Your task to perform on an android device: What's on my calendar today? Image 0: 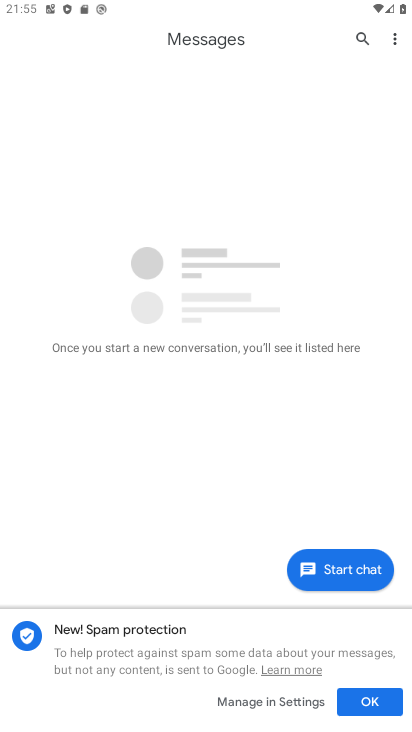
Step 0: press home button
Your task to perform on an android device: What's on my calendar today? Image 1: 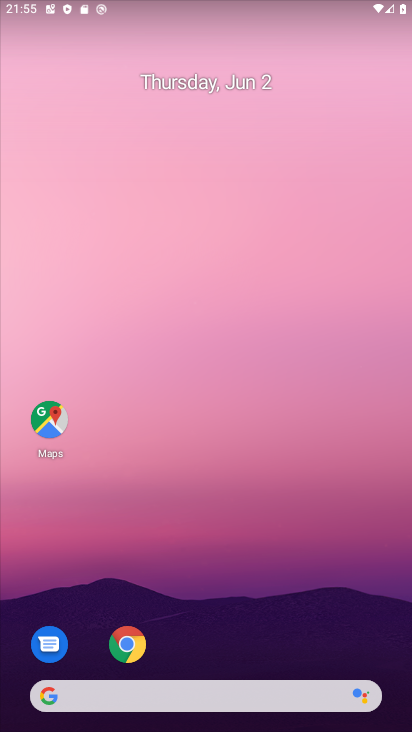
Step 1: drag from (195, 653) to (162, 224)
Your task to perform on an android device: What's on my calendar today? Image 2: 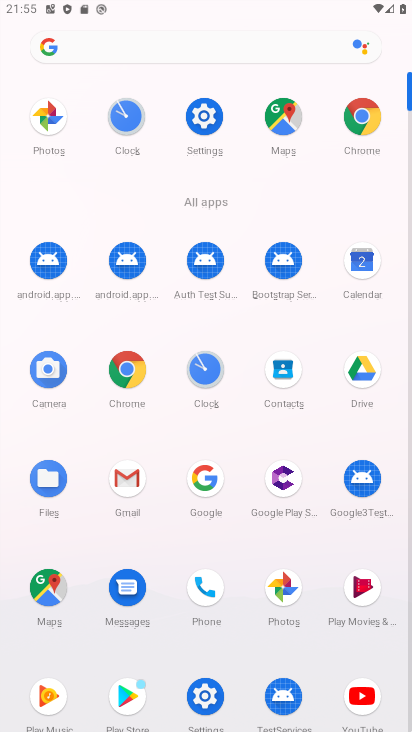
Step 2: click (368, 301)
Your task to perform on an android device: What's on my calendar today? Image 3: 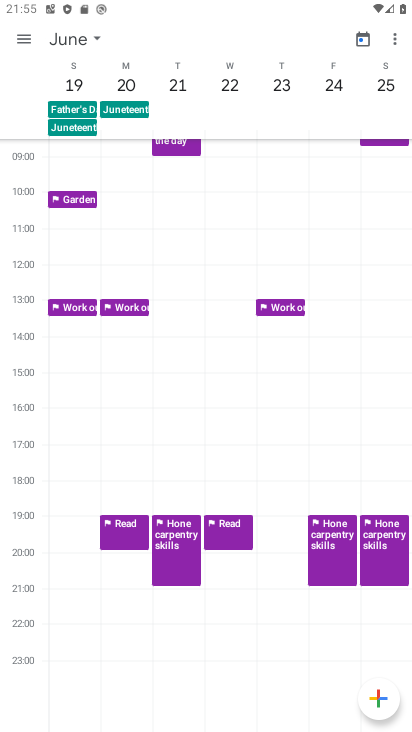
Step 3: click (73, 52)
Your task to perform on an android device: What's on my calendar today? Image 4: 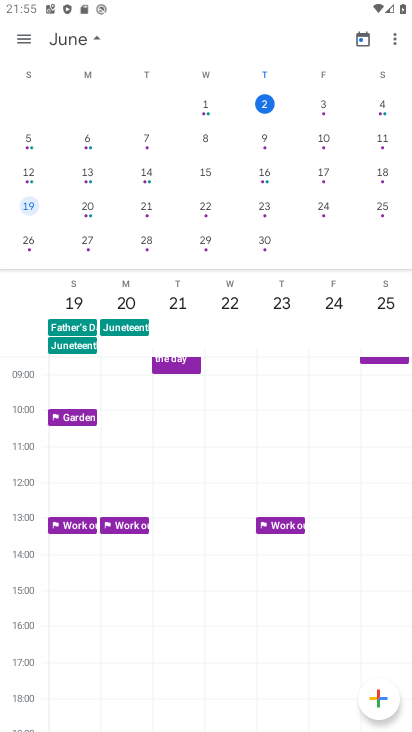
Step 4: click (22, 32)
Your task to perform on an android device: What's on my calendar today? Image 5: 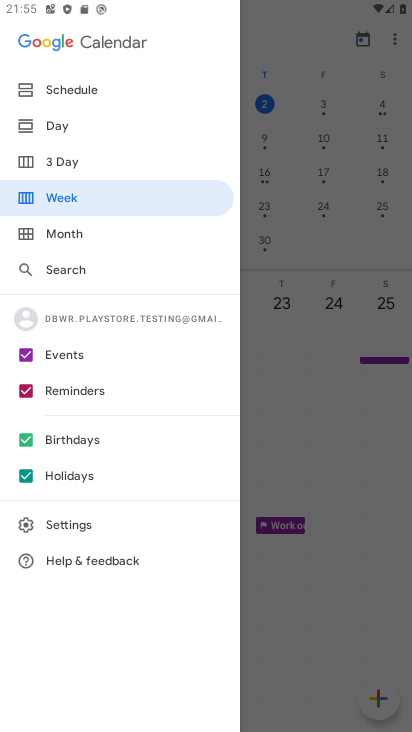
Step 5: click (68, 87)
Your task to perform on an android device: What's on my calendar today? Image 6: 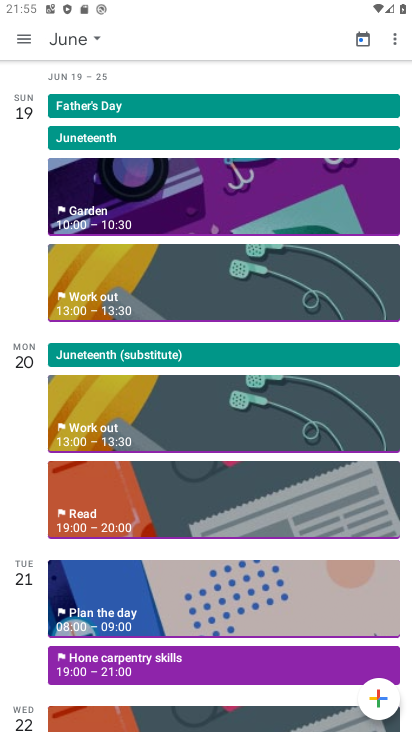
Step 6: click (69, 46)
Your task to perform on an android device: What's on my calendar today? Image 7: 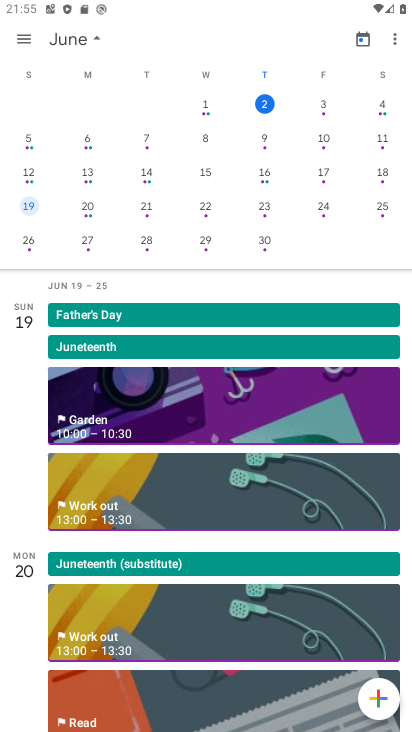
Step 7: click (266, 108)
Your task to perform on an android device: What's on my calendar today? Image 8: 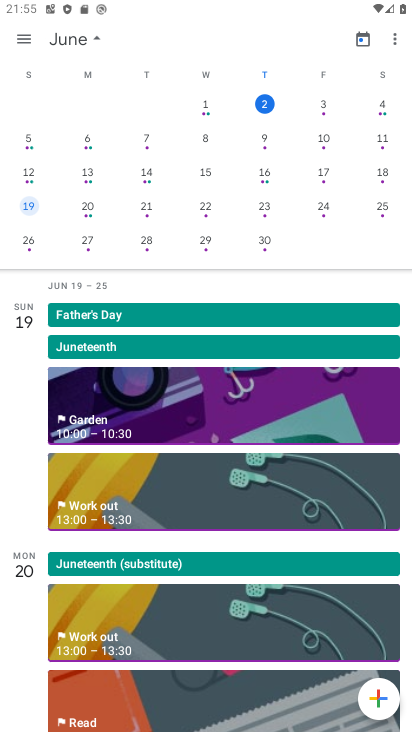
Step 8: click (326, 108)
Your task to perform on an android device: What's on my calendar today? Image 9: 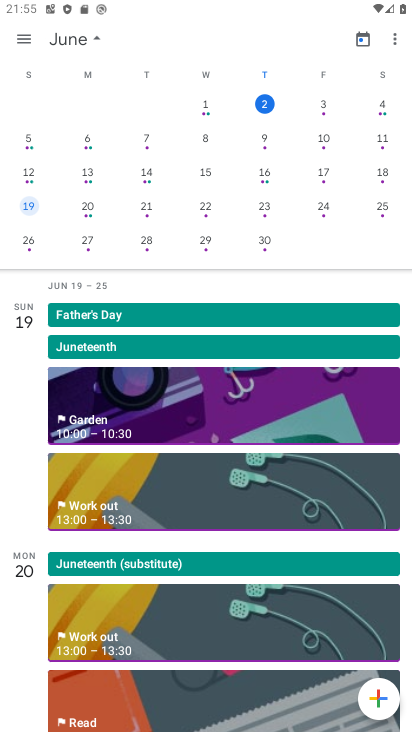
Step 9: click (326, 108)
Your task to perform on an android device: What's on my calendar today? Image 10: 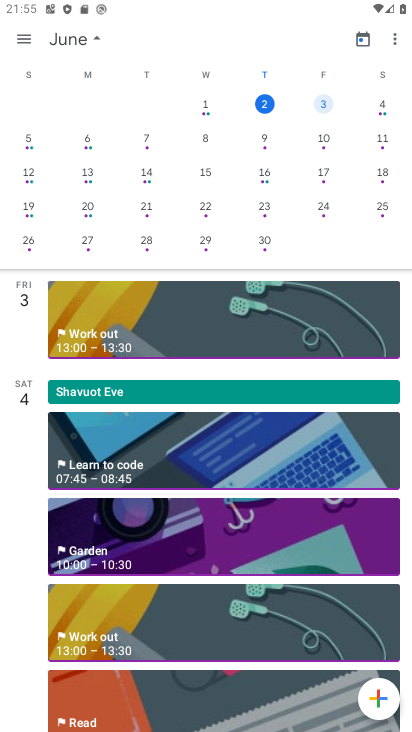
Step 10: task complete